Your task to perform on an android device: Open settings on Google Maps Image 0: 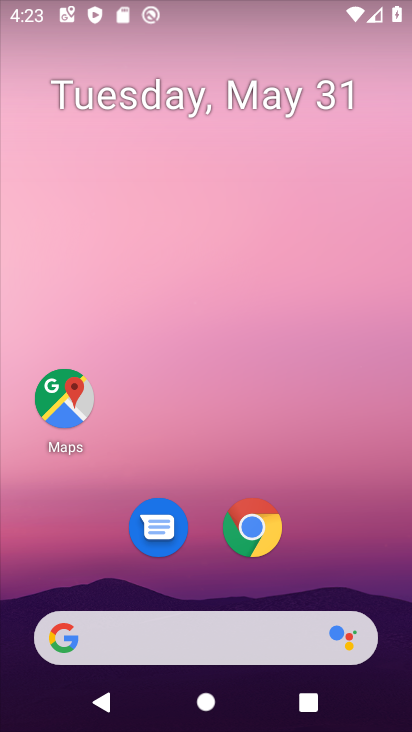
Step 0: drag from (351, 523) to (263, 13)
Your task to perform on an android device: Open settings on Google Maps Image 1: 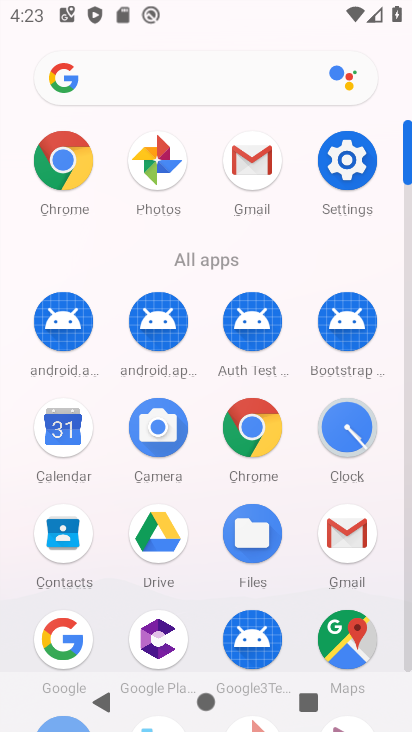
Step 1: drag from (16, 605) to (9, 215)
Your task to perform on an android device: Open settings on Google Maps Image 2: 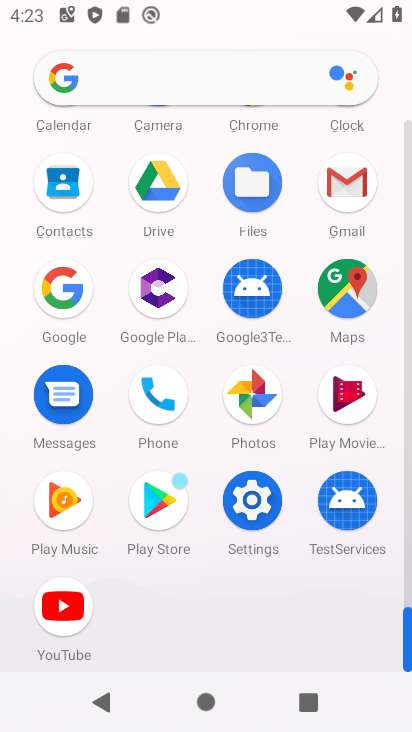
Step 2: click (340, 282)
Your task to perform on an android device: Open settings on Google Maps Image 3: 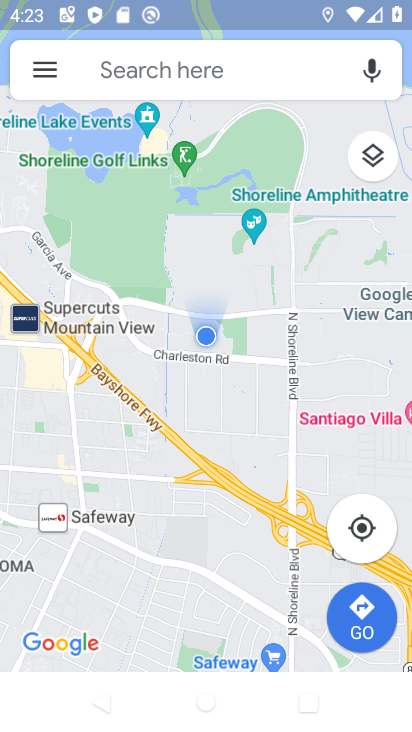
Step 3: click (41, 67)
Your task to perform on an android device: Open settings on Google Maps Image 4: 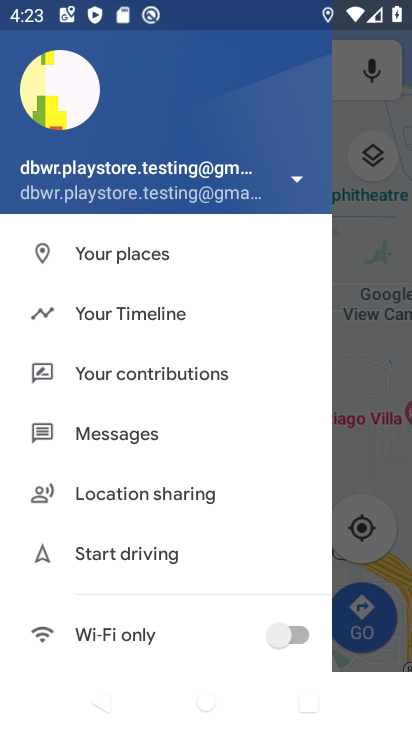
Step 4: click (353, 311)
Your task to perform on an android device: Open settings on Google Maps Image 5: 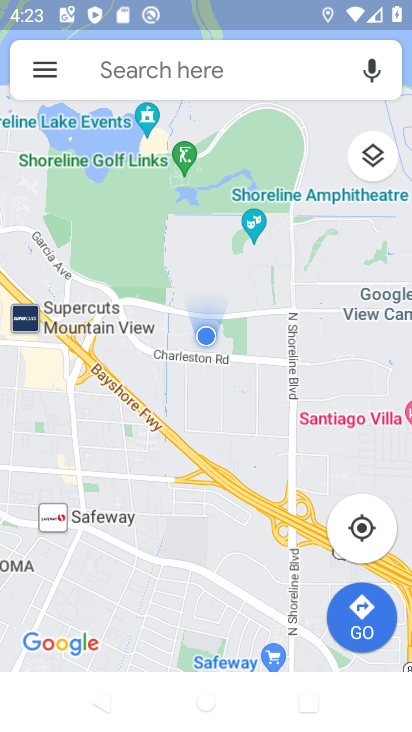
Step 5: click (40, 57)
Your task to perform on an android device: Open settings on Google Maps Image 6: 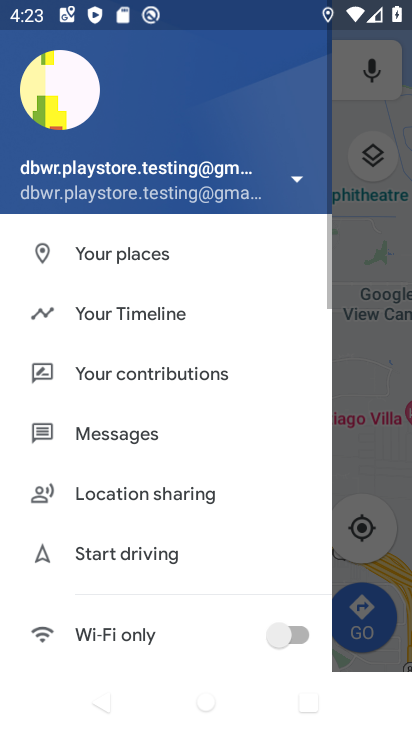
Step 6: drag from (164, 574) to (176, 209)
Your task to perform on an android device: Open settings on Google Maps Image 7: 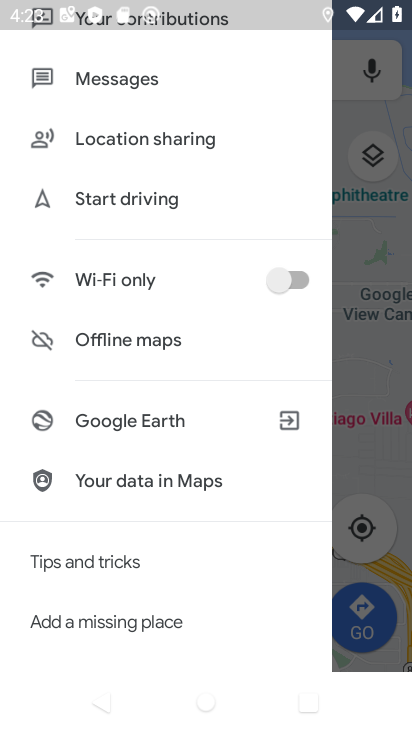
Step 7: drag from (157, 571) to (184, 202)
Your task to perform on an android device: Open settings on Google Maps Image 8: 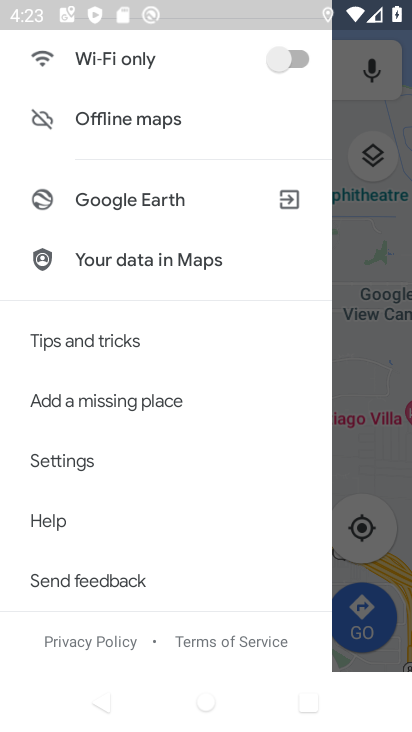
Step 8: click (54, 460)
Your task to perform on an android device: Open settings on Google Maps Image 9: 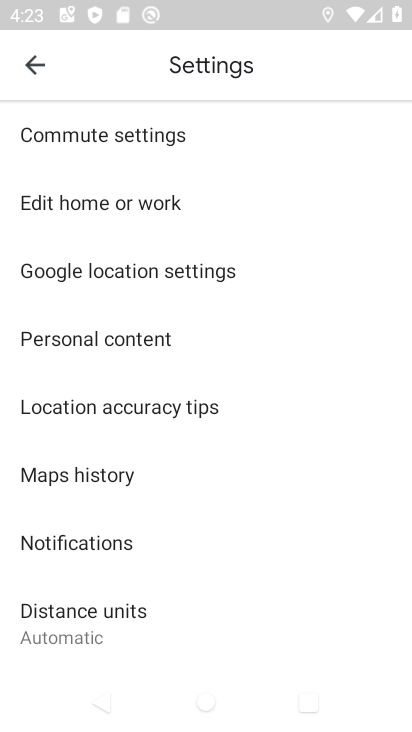
Step 9: task complete